Your task to perform on an android device: toggle pop-ups in chrome Image 0: 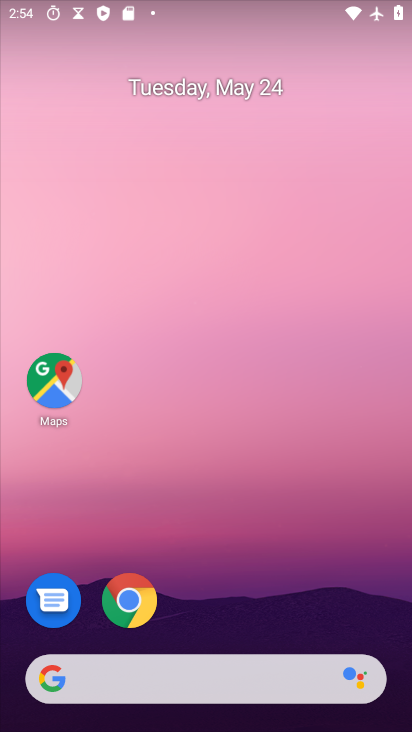
Step 0: click (125, 615)
Your task to perform on an android device: toggle pop-ups in chrome Image 1: 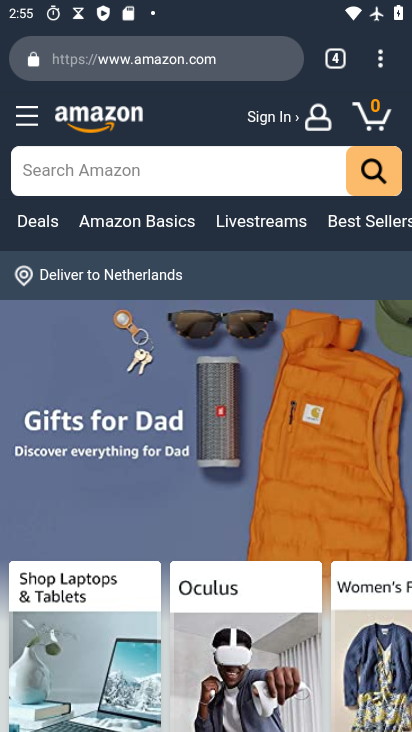
Step 1: click (378, 63)
Your task to perform on an android device: toggle pop-ups in chrome Image 2: 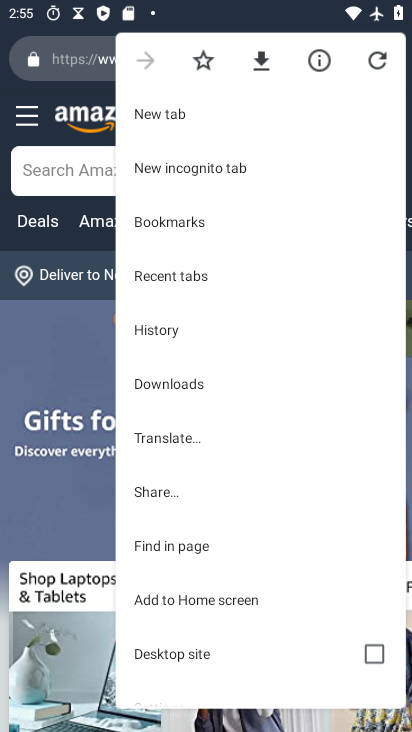
Step 2: drag from (298, 634) to (303, 277)
Your task to perform on an android device: toggle pop-ups in chrome Image 3: 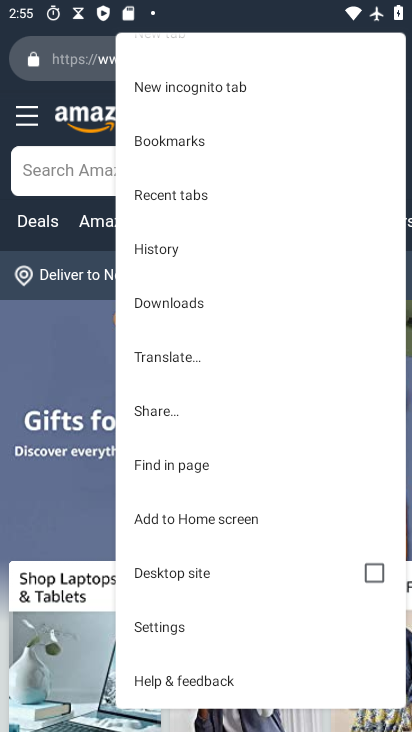
Step 3: click (201, 629)
Your task to perform on an android device: toggle pop-ups in chrome Image 4: 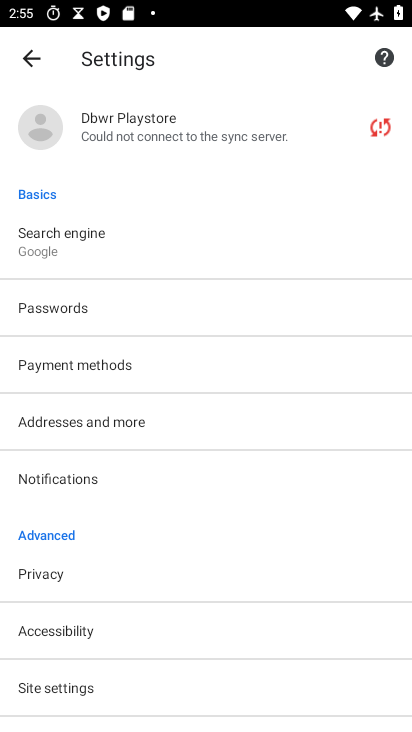
Step 4: drag from (236, 608) to (270, 230)
Your task to perform on an android device: toggle pop-ups in chrome Image 5: 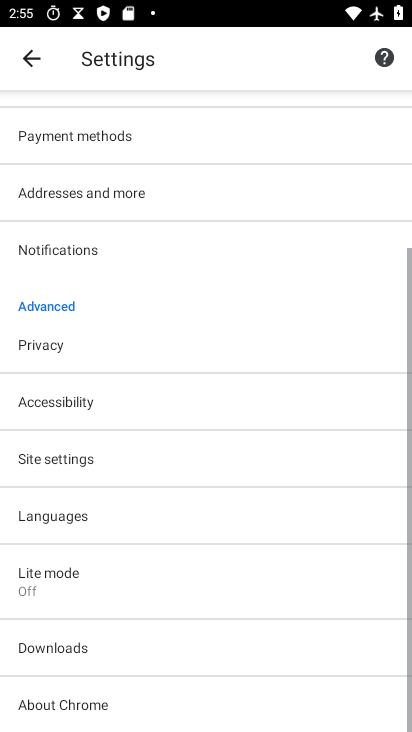
Step 5: click (162, 453)
Your task to perform on an android device: toggle pop-ups in chrome Image 6: 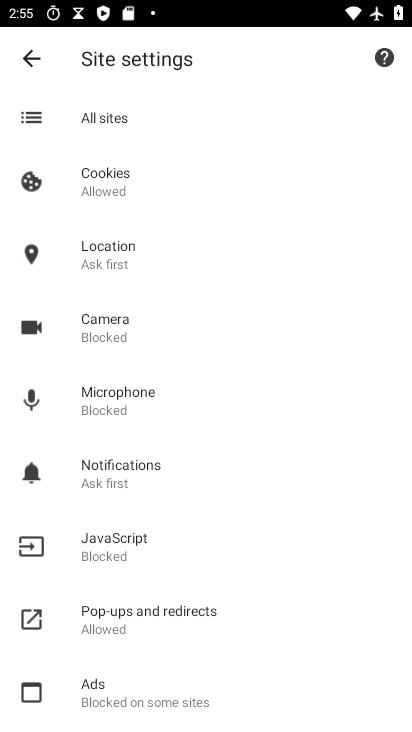
Step 6: click (208, 619)
Your task to perform on an android device: toggle pop-ups in chrome Image 7: 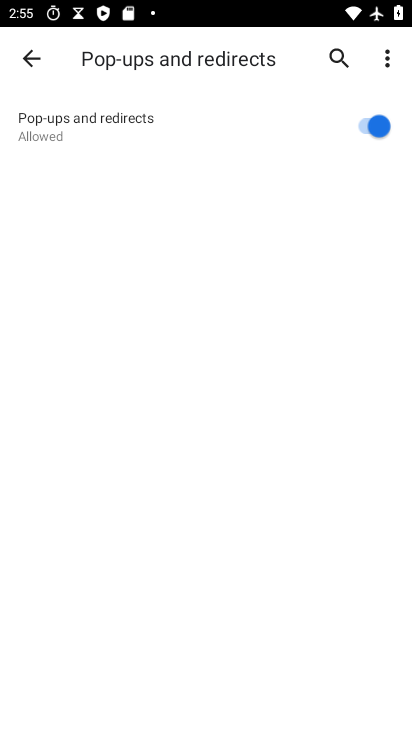
Step 7: click (360, 123)
Your task to perform on an android device: toggle pop-ups in chrome Image 8: 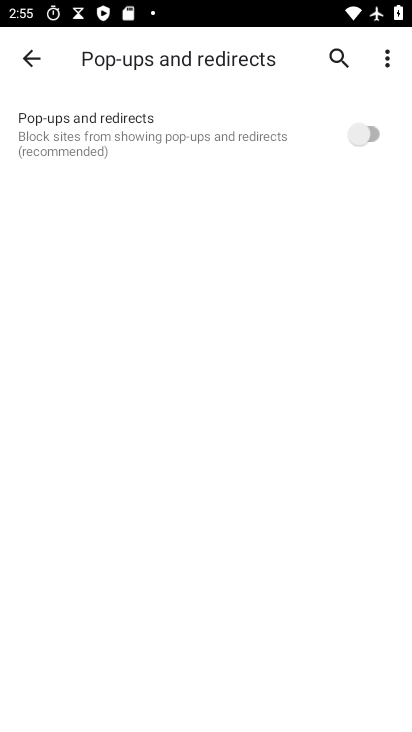
Step 8: task complete